Your task to perform on an android device: Open the web browser Image 0: 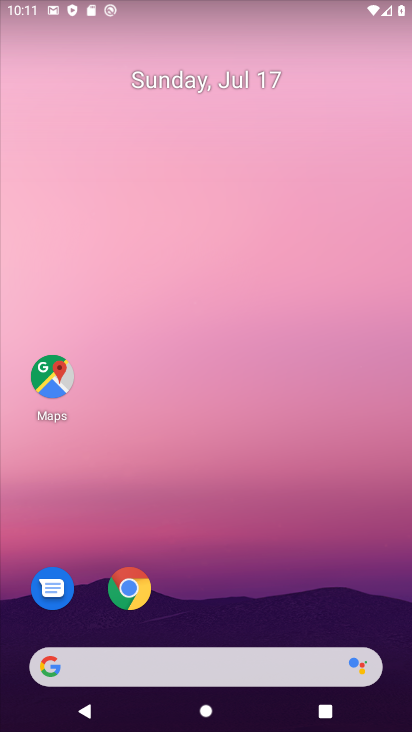
Step 0: press home button
Your task to perform on an android device: Open the web browser Image 1: 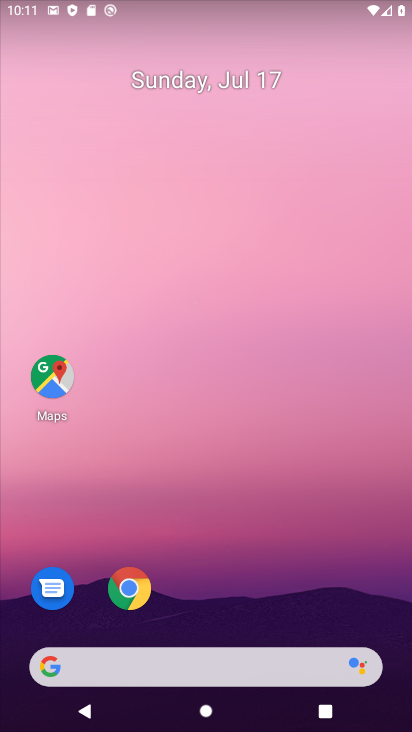
Step 1: click (122, 578)
Your task to perform on an android device: Open the web browser Image 2: 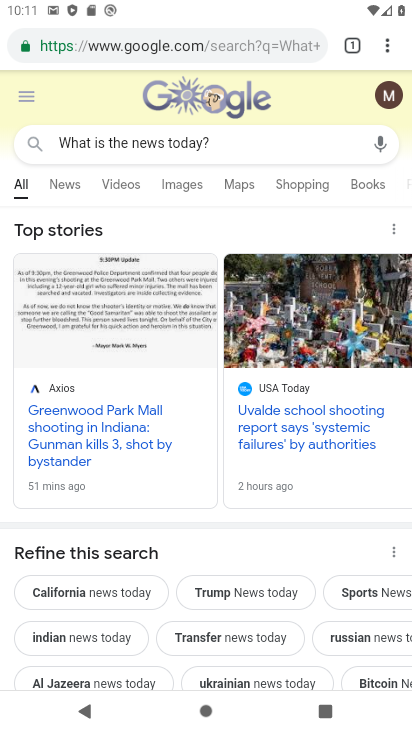
Step 2: click (188, 49)
Your task to perform on an android device: Open the web browser Image 3: 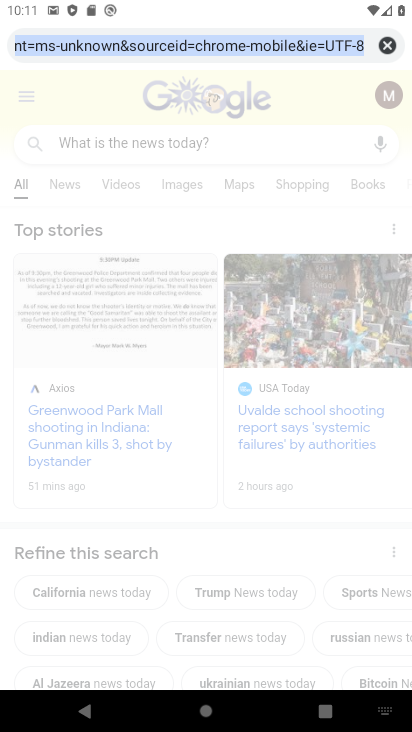
Step 3: type "web browser"
Your task to perform on an android device: Open the web browser Image 4: 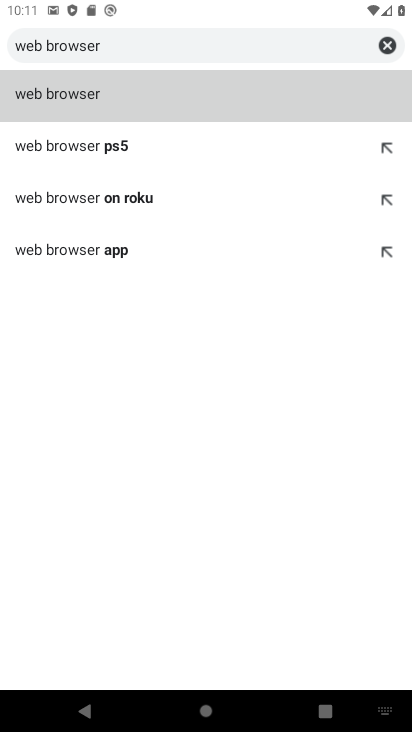
Step 4: click (131, 91)
Your task to perform on an android device: Open the web browser Image 5: 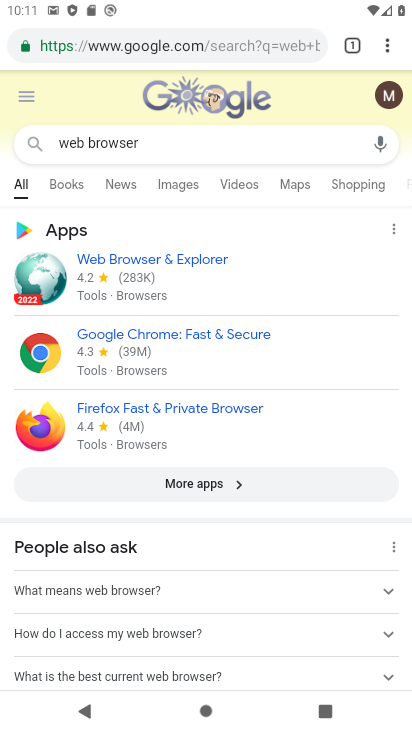
Step 5: task complete